Your task to perform on an android device: Go to Google maps Image 0: 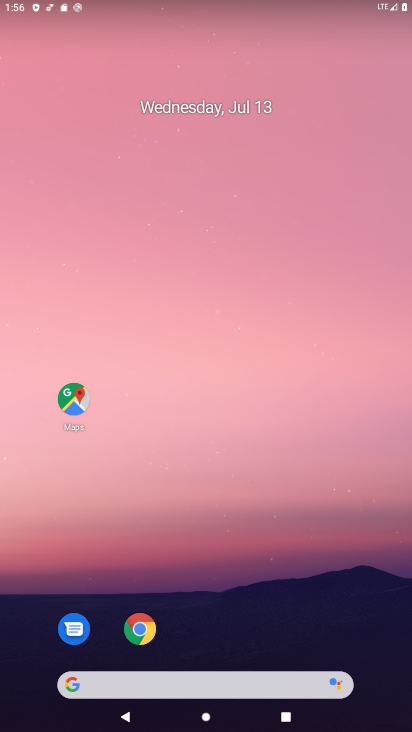
Step 0: click (71, 420)
Your task to perform on an android device: Go to Google maps Image 1: 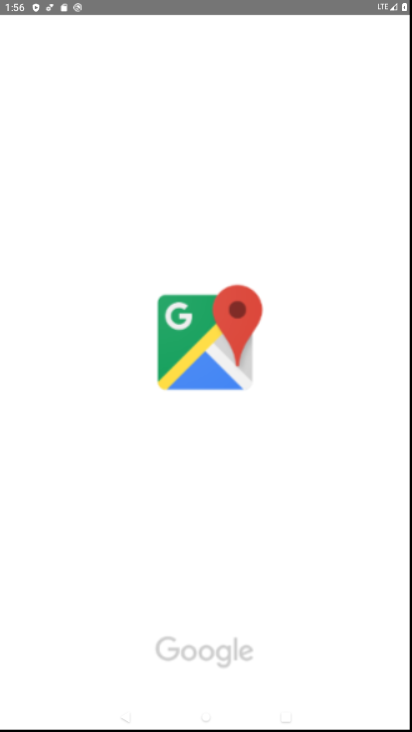
Step 1: task complete